Your task to perform on an android device: check storage Image 0: 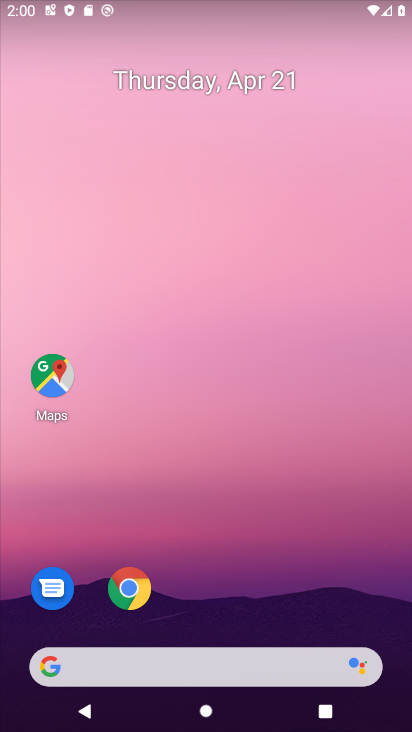
Step 0: drag from (181, 647) to (252, 81)
Your task to perform on an android device: check storage Image 1: 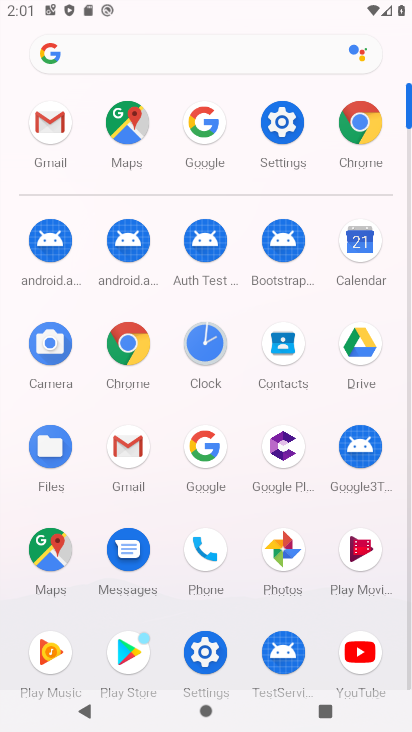
Step 1: click (290, 130)
Your task to perform on an android device: check storage Image 2: 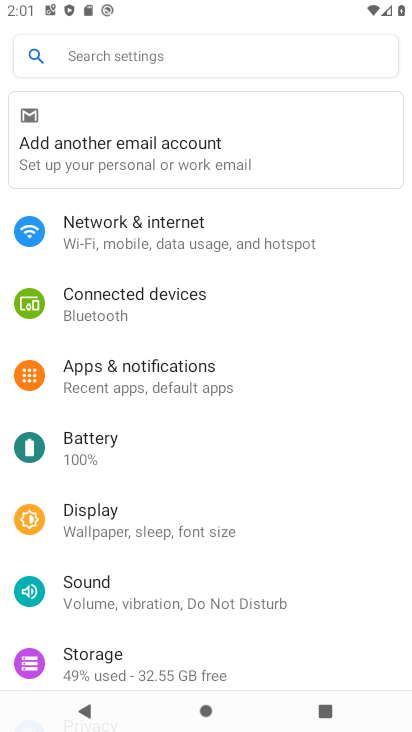
Step 2: drag from (219, 492) to (243, 270)
Your task to perform on an android device: check storage Image 3: 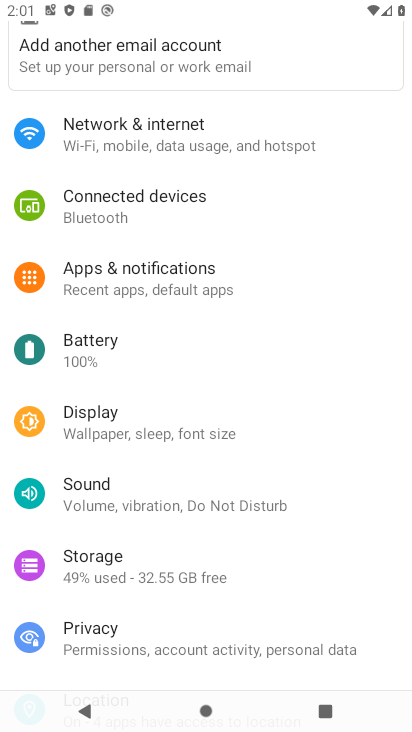
Step 3: click (171, 588)
Your task to perform on an android device: check storage Image 4: 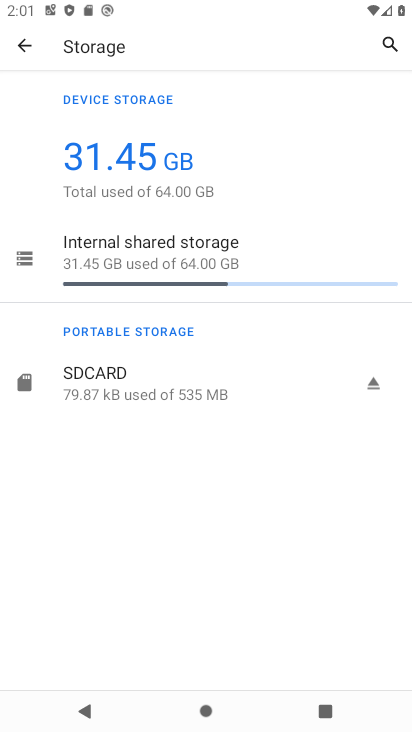
Step 4: click (324, 266)
Your task to perform on an android device: check storage Image 5: 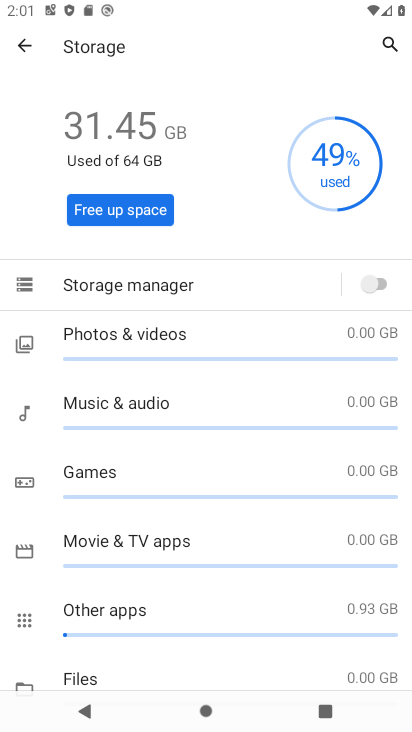
Step 5: task complete